Your task to perform on an android device: turn on improve location accuracy Image 0: 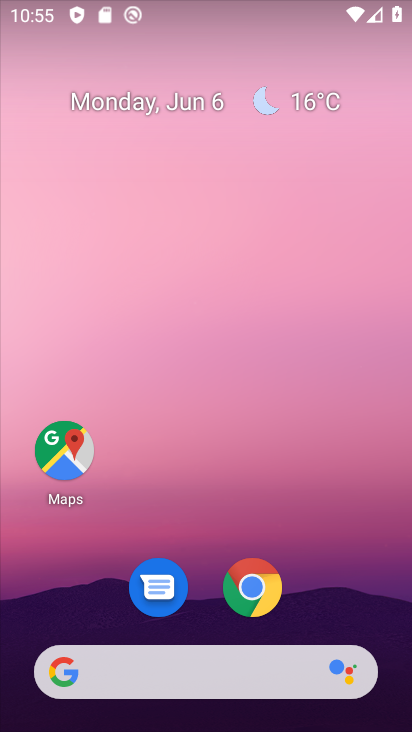
Step 0: drag from (354, 605) to (251, 10)
Your task to perform on an android device: turn on improve location accuracy Image 1: 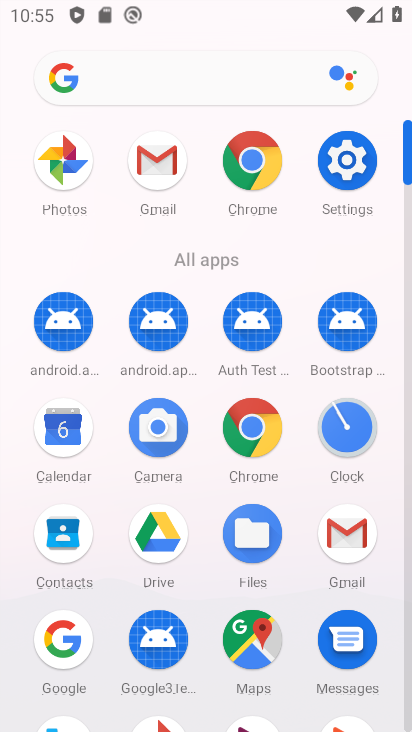
Step 1: drag from (6, 578) to (40, 227)
Your task to perform on an android device: turn on improve location accuracy Image 2: 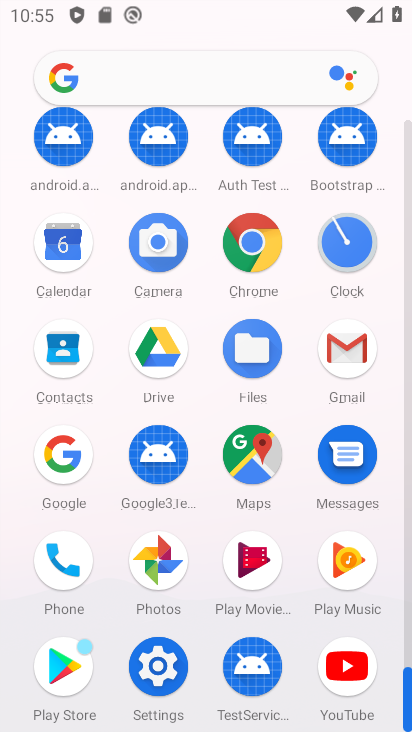
Step 2: click (158, 665)
Your task to perform on an android device: turn on improve location accuracy Image 3: 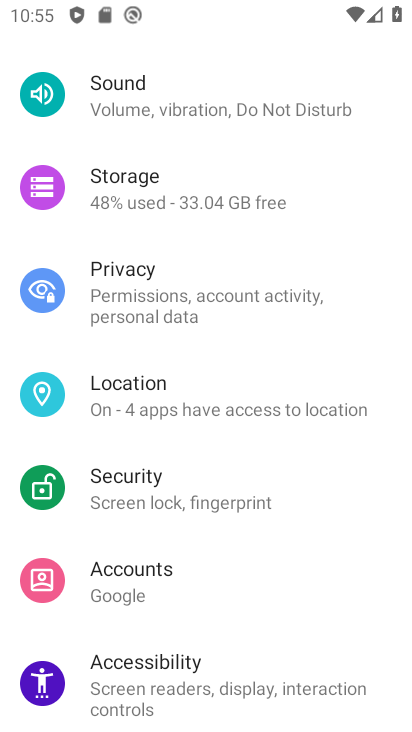
Step 3: click (162, 389)
Your task to perform on an android device: turn on improve location accuracy Image 4: 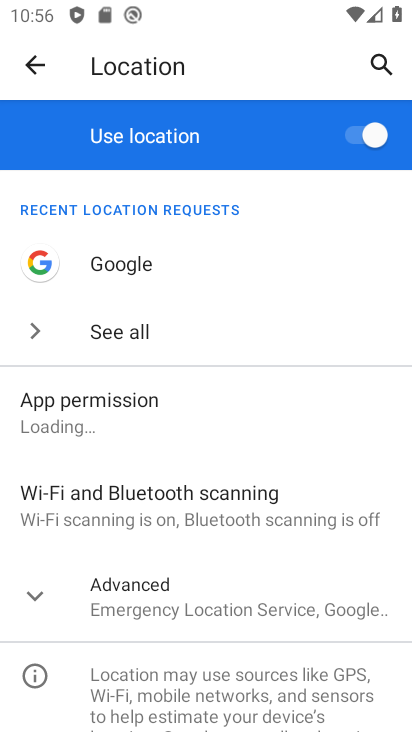
Step 4: click (136, 602)
Your task to perform on an android device: turn on improve location accuracy Image 5: 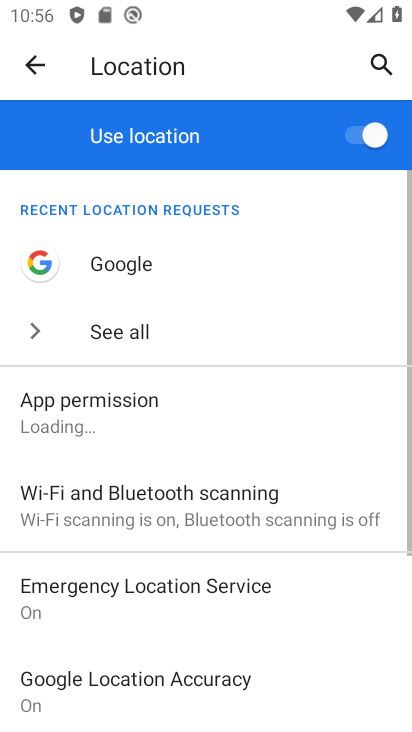
Step 5: drag from (329, 650) to (330, 189)
Your task to perform on an android device: turn on improve location accuracy Image 6: 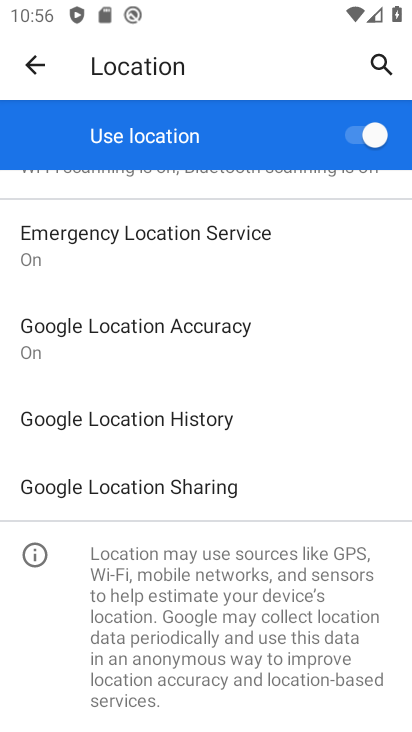
Step 6: click (238, 330)
Your task to perform on an android device: turn on improve location accuracy Image 7: 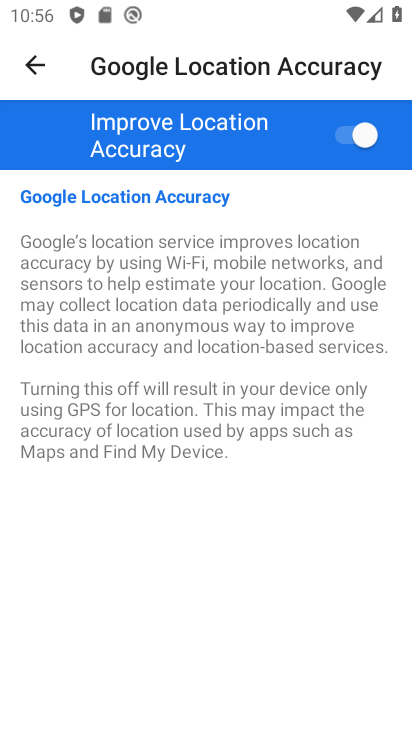
Step 7: task complete